Your task to perform on an android device: turn off javascript in the chrome app Image 0: 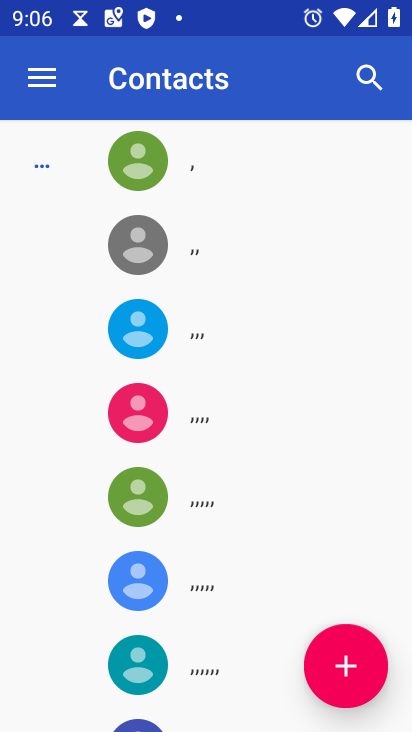
Step 0: press home button
Your task to perform on an android device: turn off javascript in the chrome app Image 1: 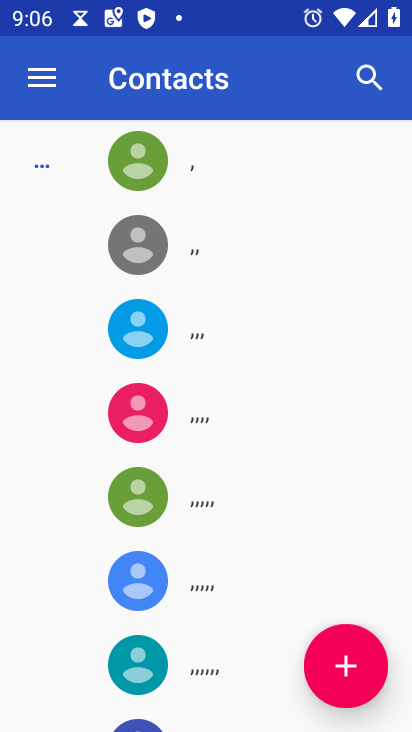
Step 1: press home button
Your task to perform on an android device: turn off javascript in the chrome app Image 2: 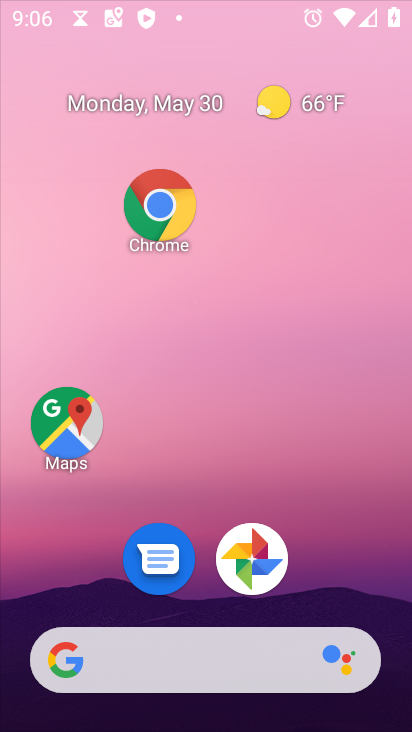
Step 2: press home button
Your task to perform on an android device: turn off javascript in the chrome app Image 3: 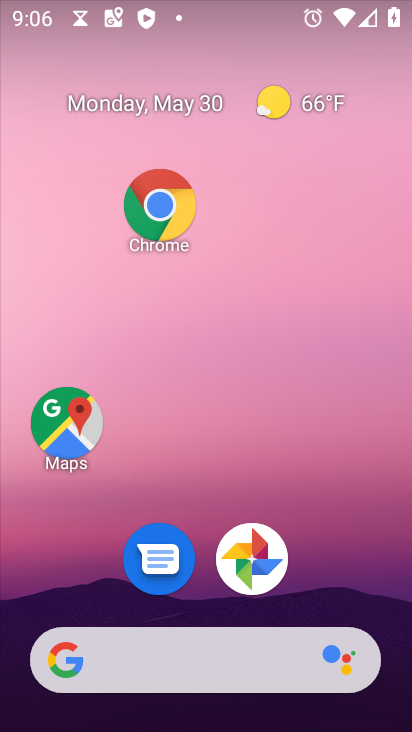
Step 3: drag from (154, 125) to (146, 72)
Your task to perform on an android device: turn off javascript in the chrome app Image 4: 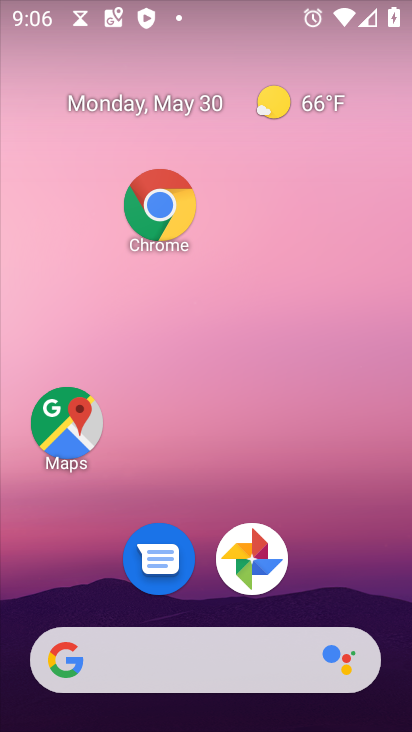
Step 4: drag from (237, 727) to (183, 130)
Your task to perform on an android device: turn off javascript in the chrome app Image 5: 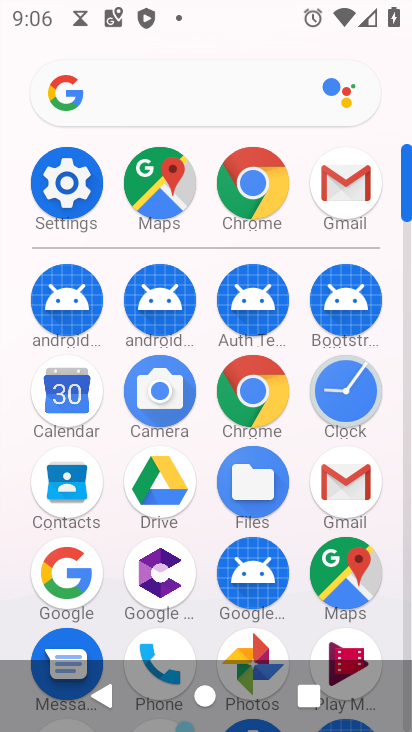
Step 5: drag from (235, 606) to (218, 110)
Your task to perform on an android device: turn off javascript in the chrome app Image 6: 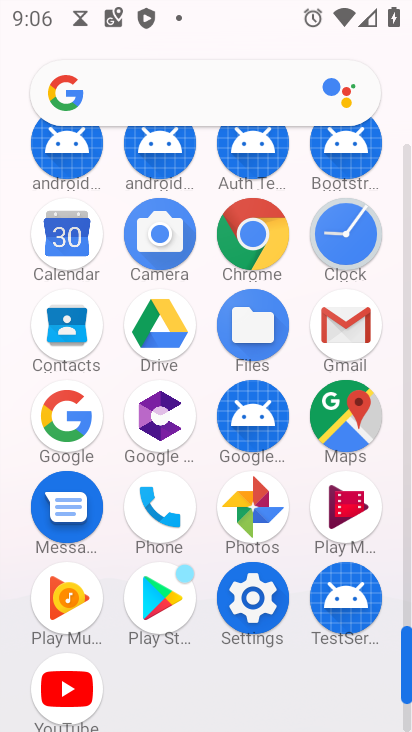
Step 6: click (250, 245)
Your task to perform on an android device: turn off javascript in the chrome app Image 7: 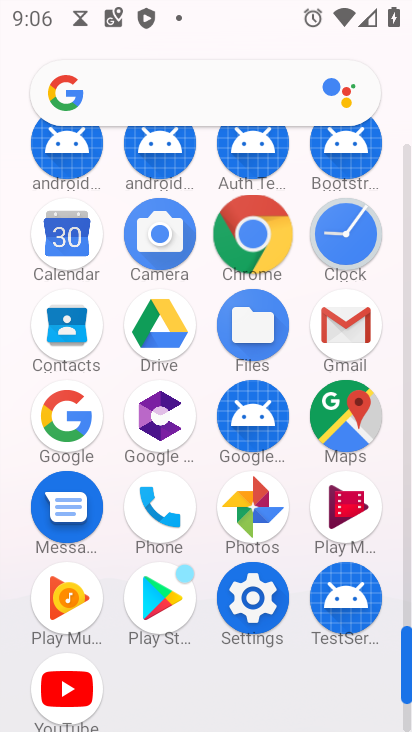
Step 7: click (248, 244)
Your task to perform on an android device: turn off javascript in the chrome app Image 8: 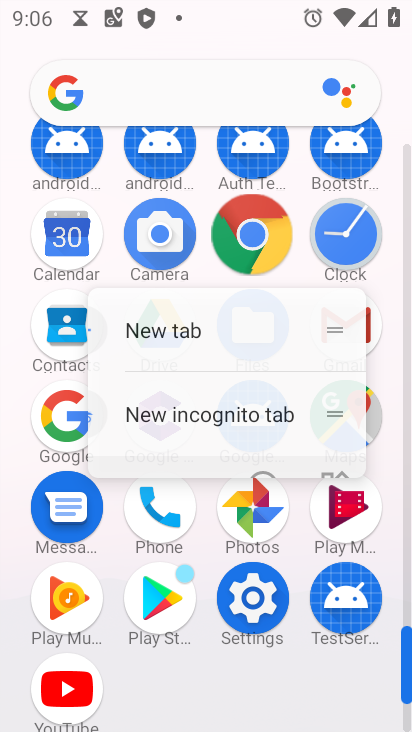
Step 8: click (248, 243)
Your task to perform on an android device: turn off javascript in the chrome app Image 9: 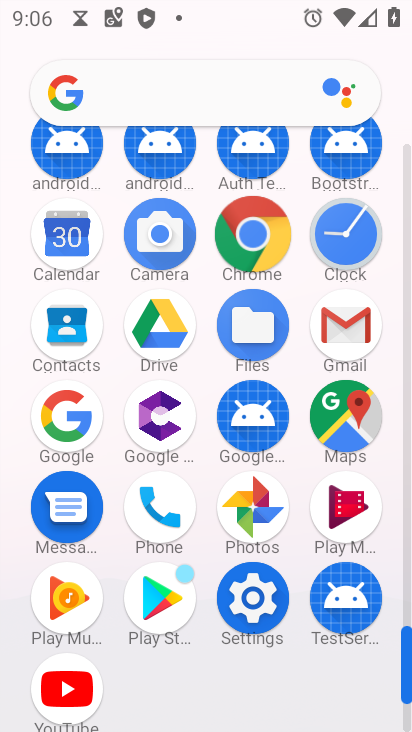
Step 9: click (248, 240)
Your task to perform on an android device: turn off javascript in the chrome app Image 10: 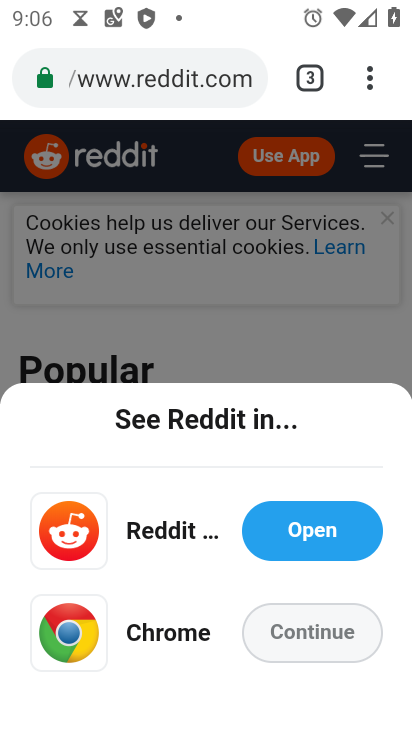
Step 10: press back button
Your task to perform on an android device: turn off javascript in the chrome app Image 11: 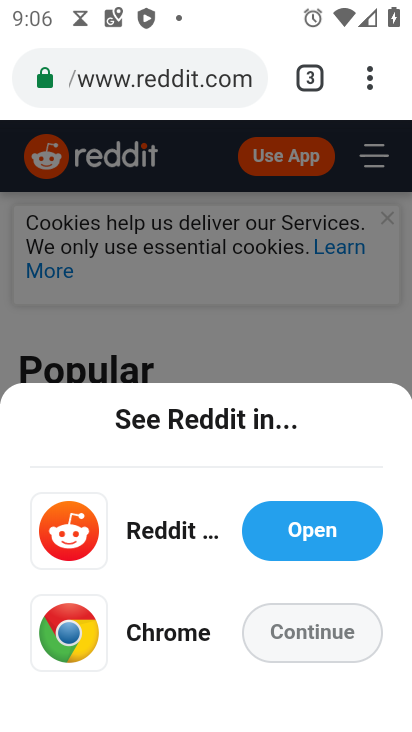
Step 11: press back button
Your task to perform on an android device: turn off javascript in the chrome app Image 12: 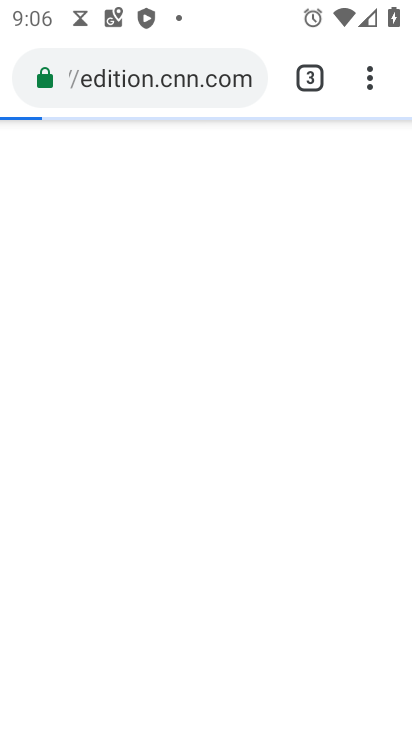
Step 12: press back button
Your task to perform on an android device: turn off javascript in the chrome app Image 13: 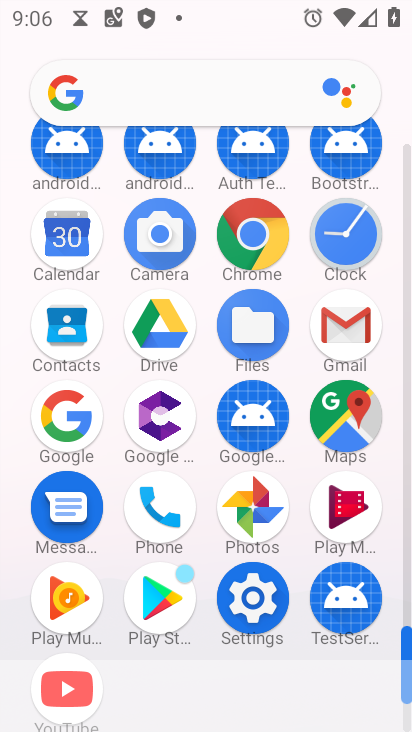
Step 13: click (238, 226)
Your task to perform on an android device: turn off javascript in the chrome app Image 14: 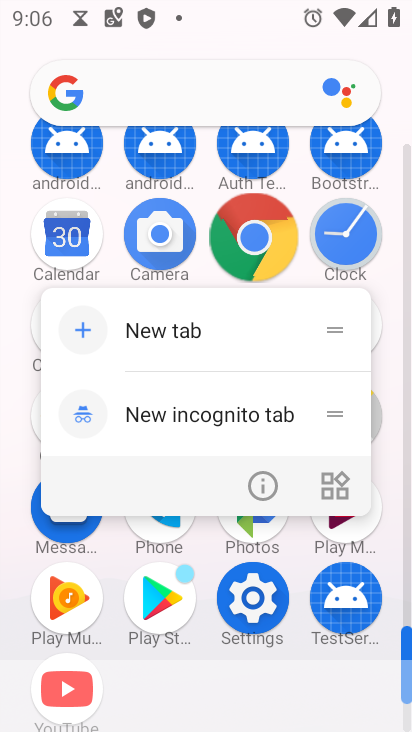
Step 14: click (241, 230)
Your task to perform on an android device: turn off javascript in the chrome app Image 15: 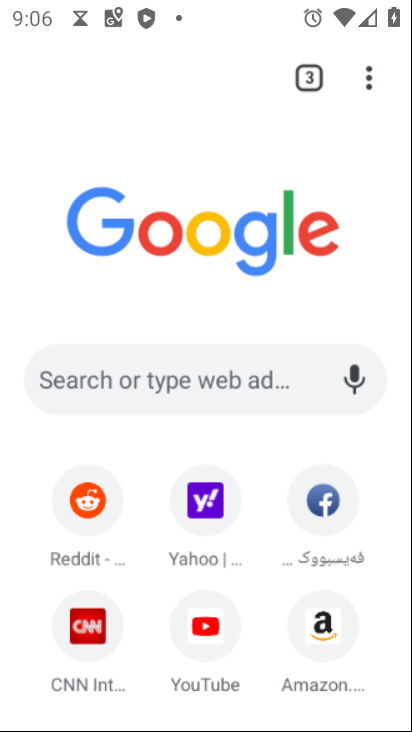
Step 15: click (244, 228)
Your task to perform on an android device: turn off javascript in the chrome app Image 16: 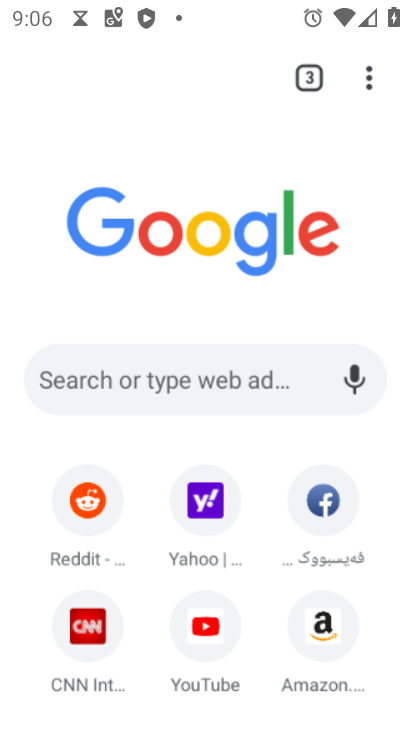
Step 16: click (244, 228)
Your task to perform on an android device: turn off javascript in the chrome app Image 17: 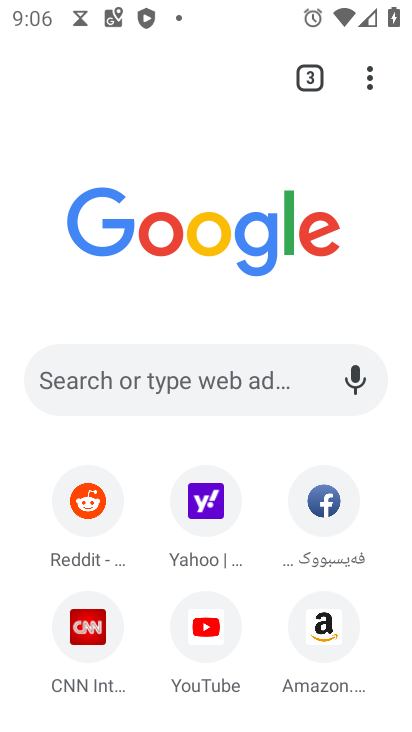
Step 17: drag from (366, 90) to (71, 616)
Your task to perform on an android device: turn off javascript in the chrome app Image 18: 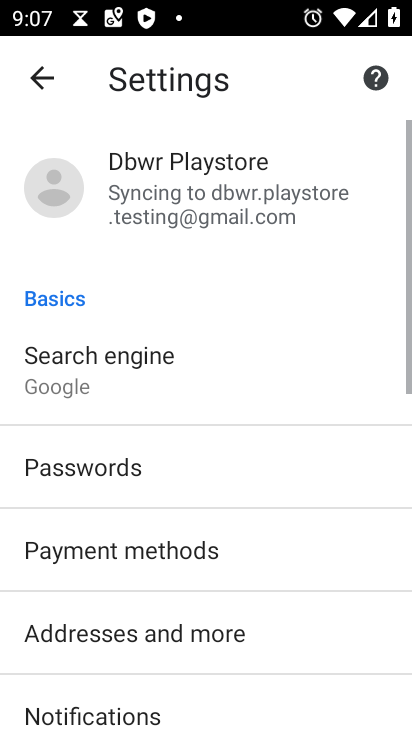
Step 18: drag from (174, 574) to (172, 208)
Your task to perform on an android device: turn off javascript in the chrome app Image 19: 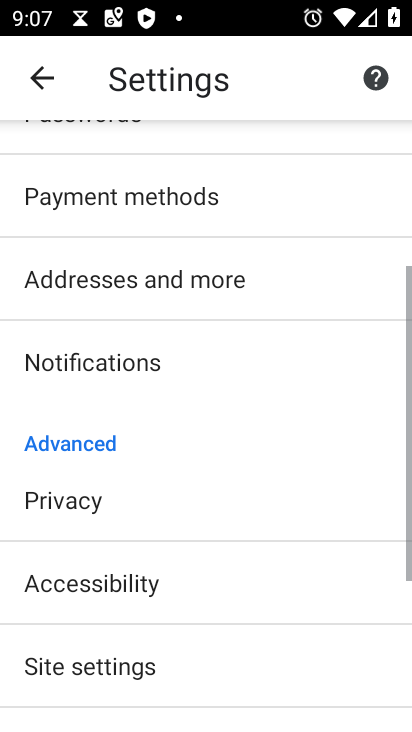
Step 19: drag from (160, 531) to (143, 217)
Your task to perform on an android device: turn off javascript in the chrome app Image 20: 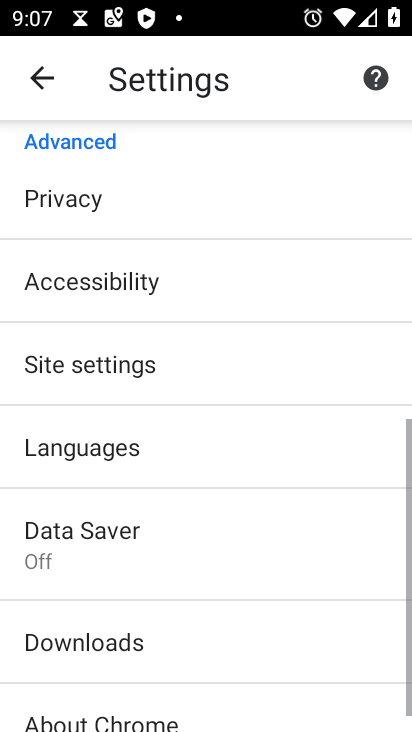
Step 20: drag from (156, 517) to (159, 178)
Your task to perform on an android device: turn off javascript in the chrome app Image 21: 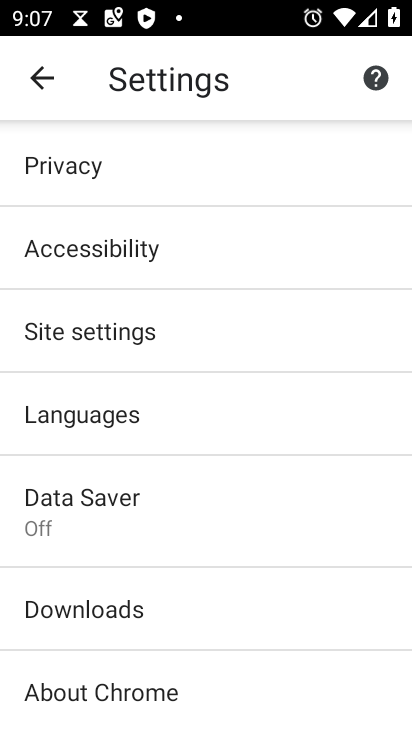
Step 21: click (69, 324)
Your task to perform on an android device: turn off javascript in the chrome app Image 22: 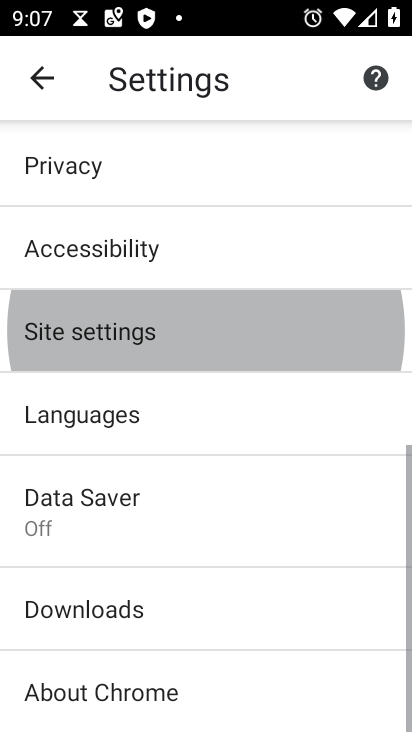
Step 22: click (76, 327)
Your task to perform on an android device: turn off javascript in the chrome app Image 23: 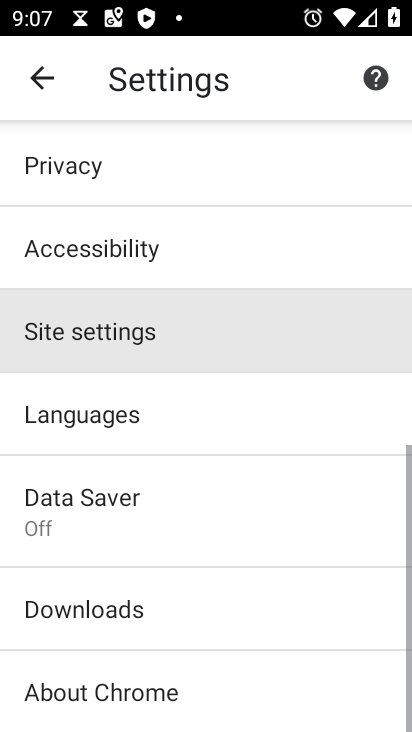
Step 23: click (76, 329)
Your task to perform on an android device: turn off javascript in the chrome app Image 24: 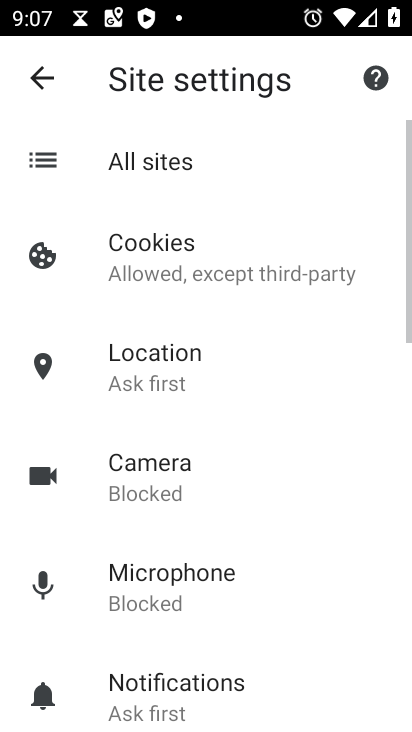
Step 24: drag from (195, 596) to (191, 334)
Your task to perform on an android device: turn off javascript in the chrome app Image 25: 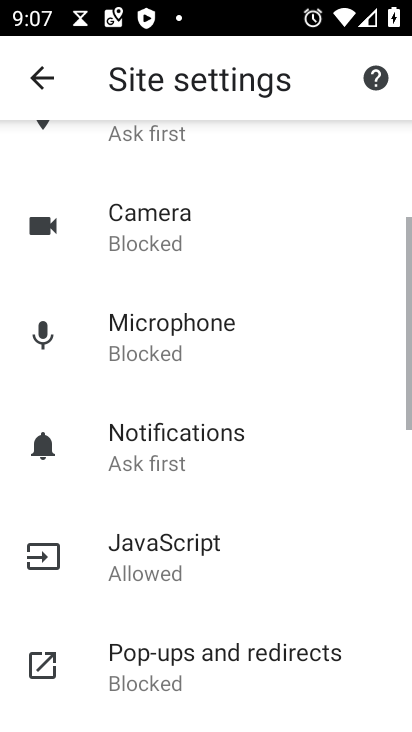
Step 25: drag from (199, 427) to (169, 254)
Your task to perform on an android device: turn off javascript in the chrome app Image 26: 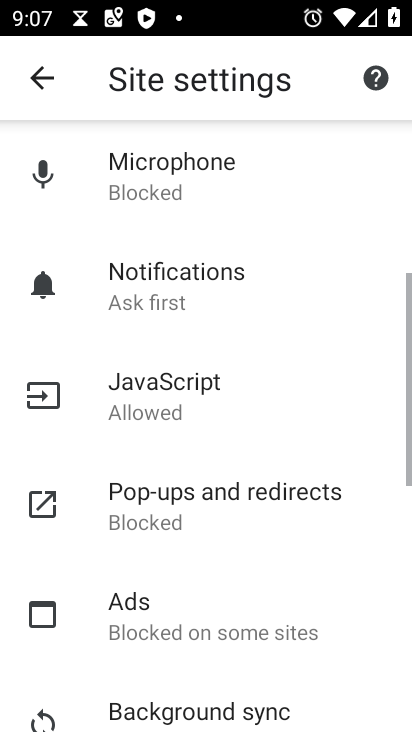
Step 26: click (161, 401)
Your task to perform on an android device: turn off javascript in the chrome app Image 27: 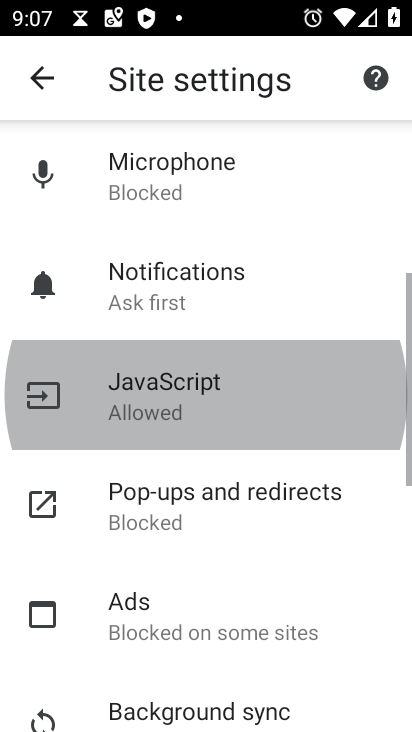
Step 27: click (161, 401)
Your task to perform on an android device: turn off javascript in the chrome app Image 28: 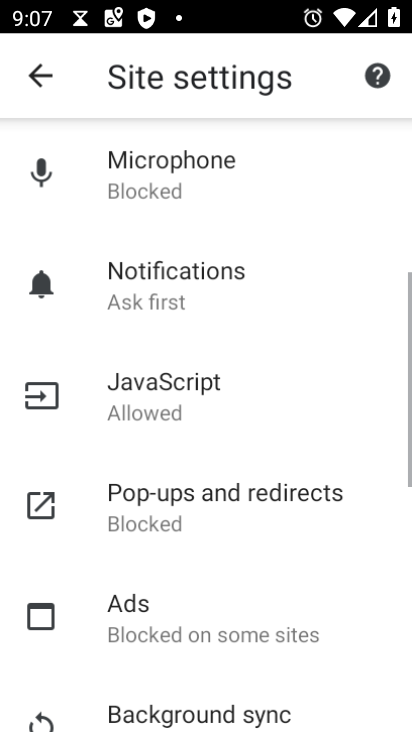
Step 28: click (161, 401)
Your task to perform on an android device: turn off javascript in the chrome app Image 29: 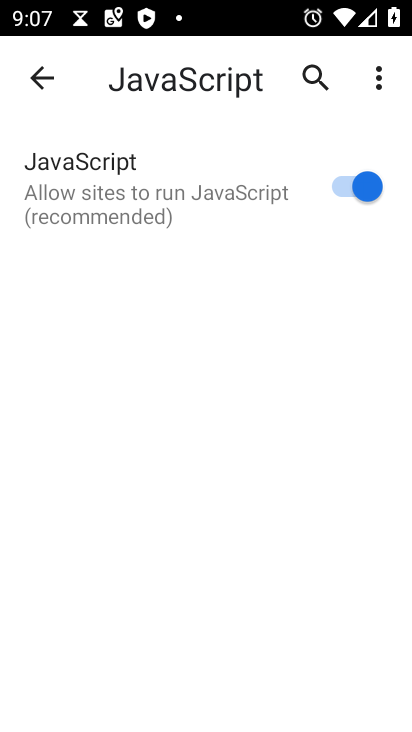
Step 29: click (161, 400)
Your task to perform on an android device: turn off javascript in the chrome app Image 30: 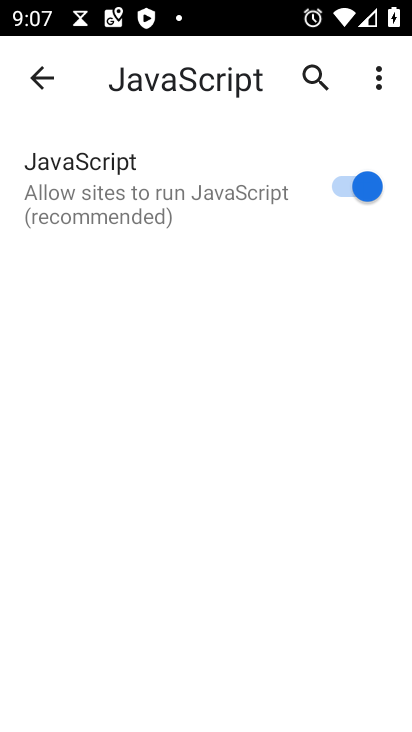
Step 30: click (353, 186)
Your task to perform on an android device: turn off javascript in the chrome app Image 31: 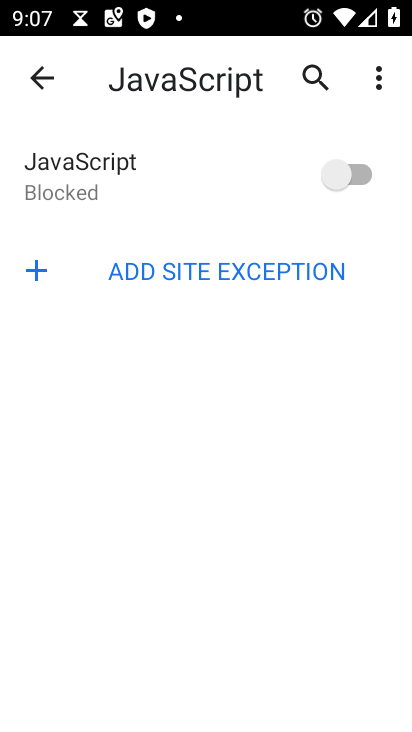
Step 31: task complete